Your task to perform on an android device: turn off smart reply in the gmail app Image 0: 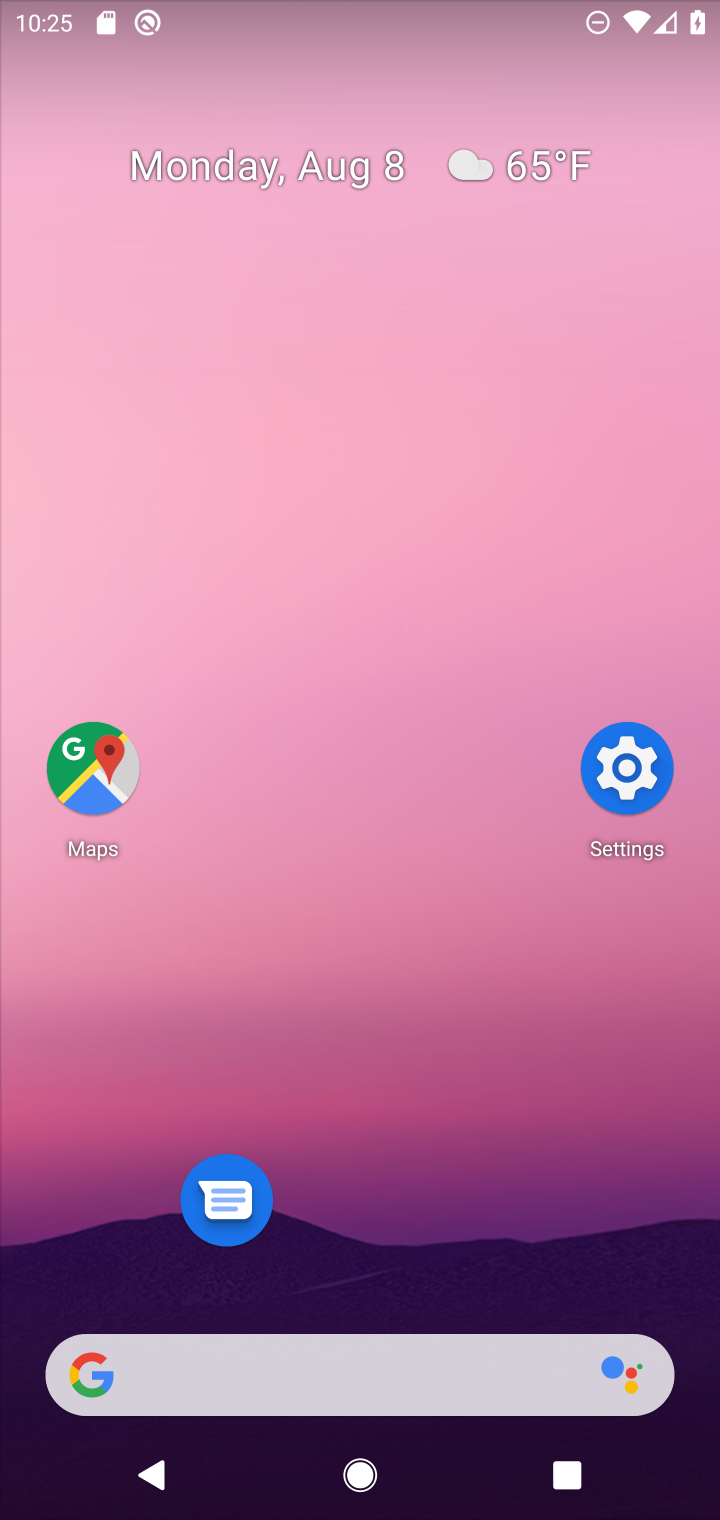
Step 0: drag from (318, 1378) to (538, 284)
Your task to perform on an android device: turn off smart reply in the gmail app Image 1: 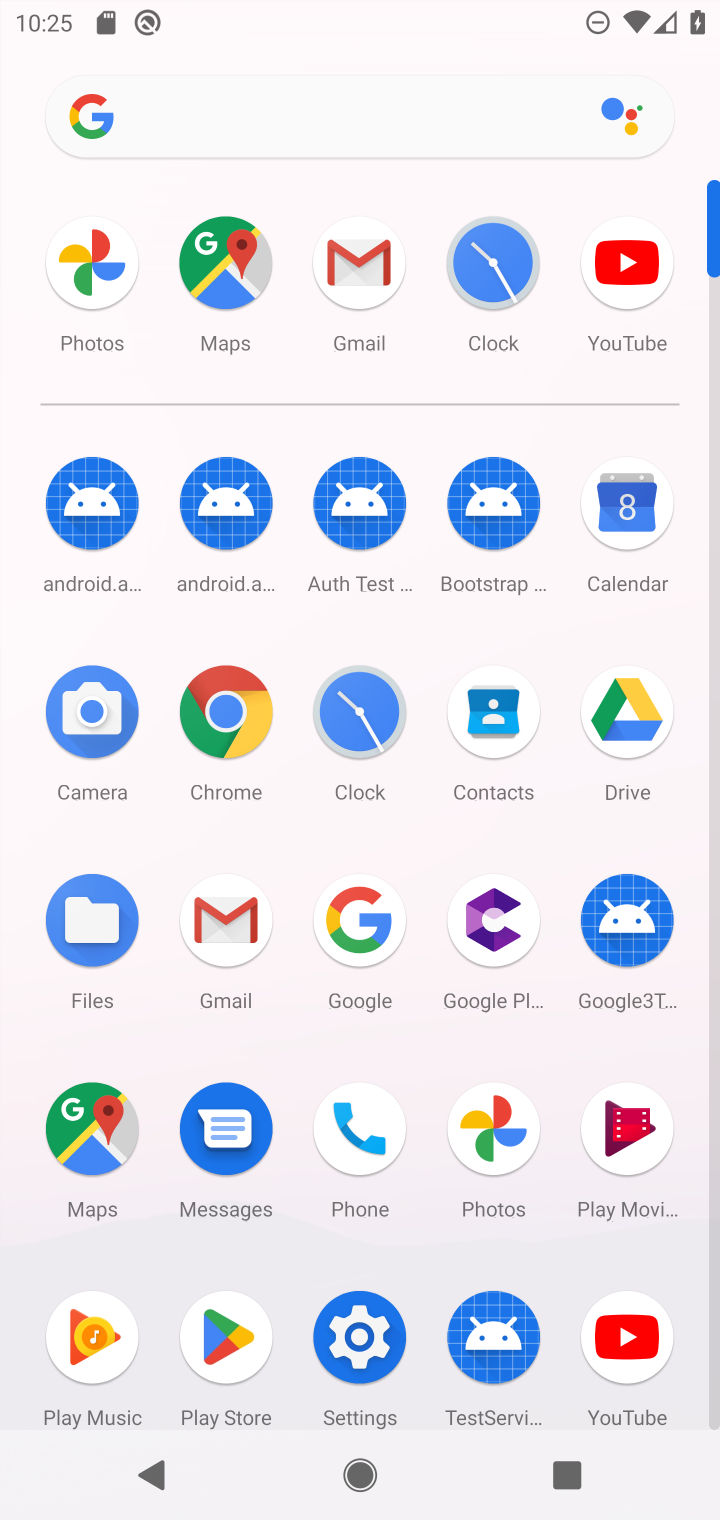
Step 1: click (353, 266)
Your task to perform on an android device: turn off smart reply in the gmail app Image 2: 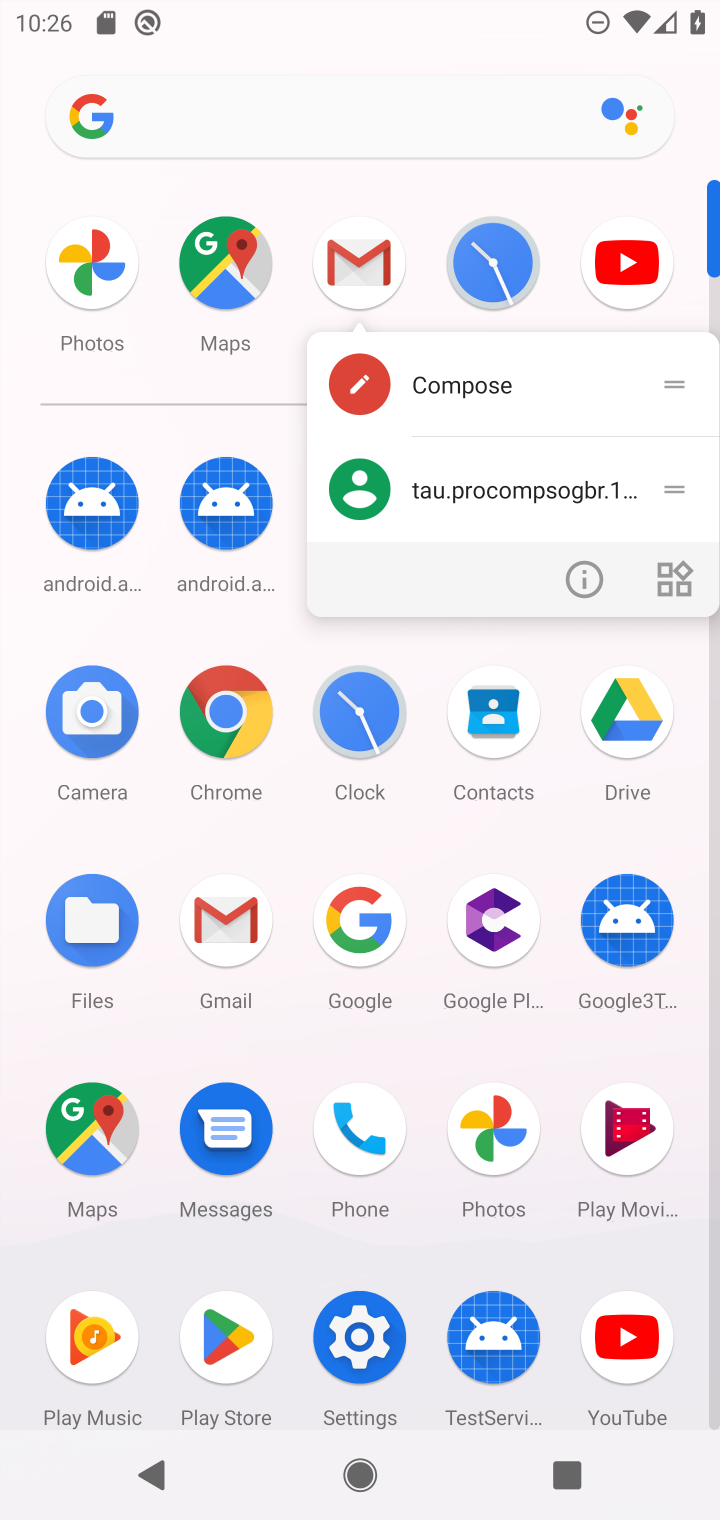
Step 2: click (353, 268)
Your task to perform on an android device: turn off smart reply in the gmail app Image 3: 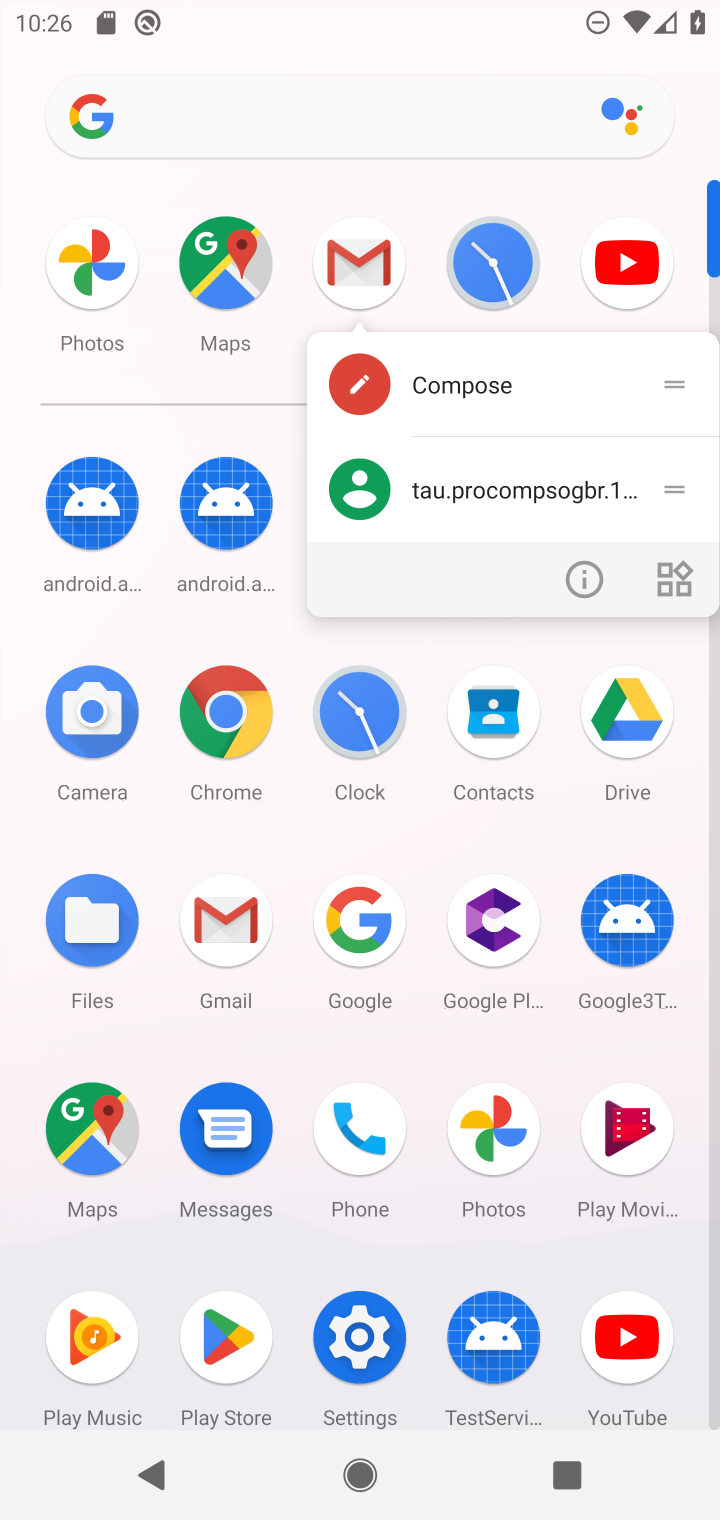
Step 3: click (353, 269)
Your task to perform on an android device: turn off smart reply in the gmail app Image 4: 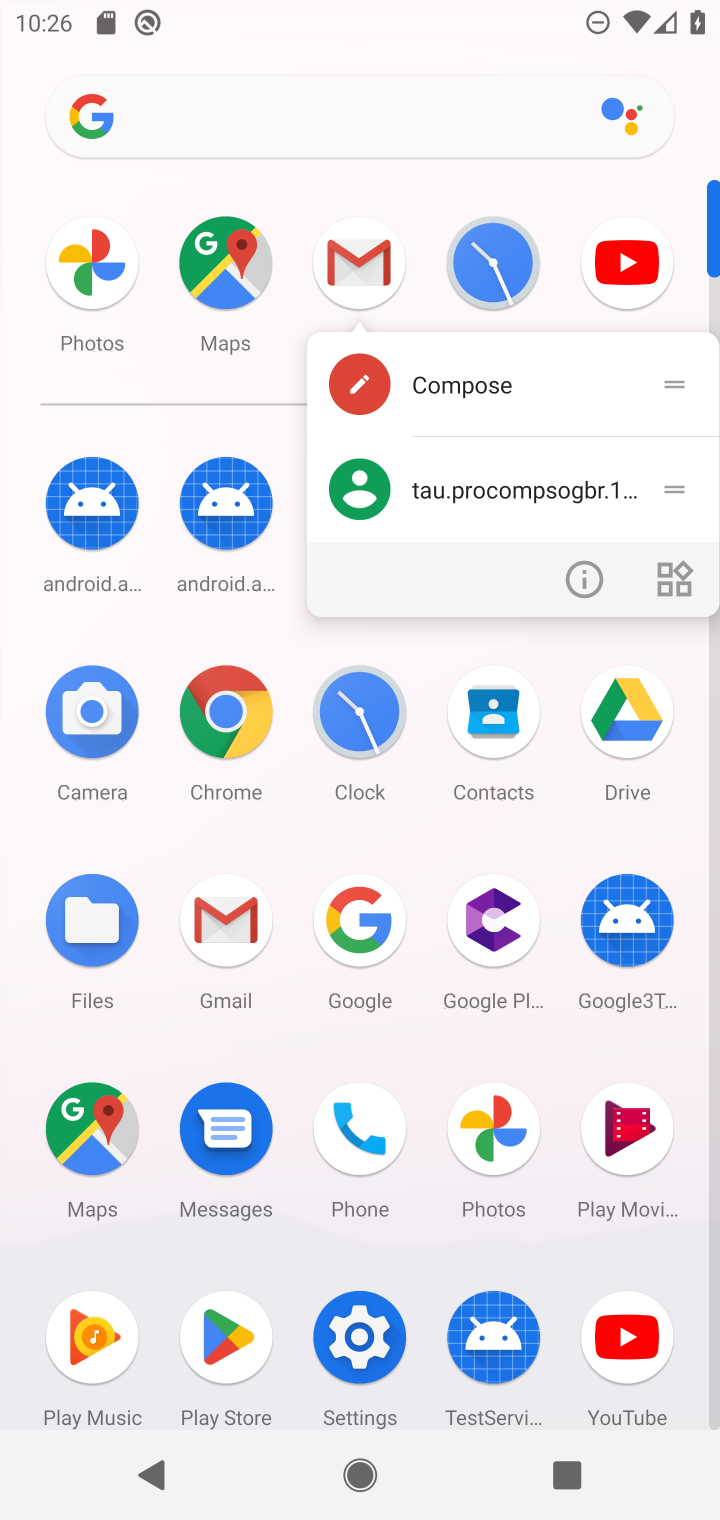
Step 4: click (353, 269)
Your task to perform on an android device: turn off smart reply in the gmail app Image 5: 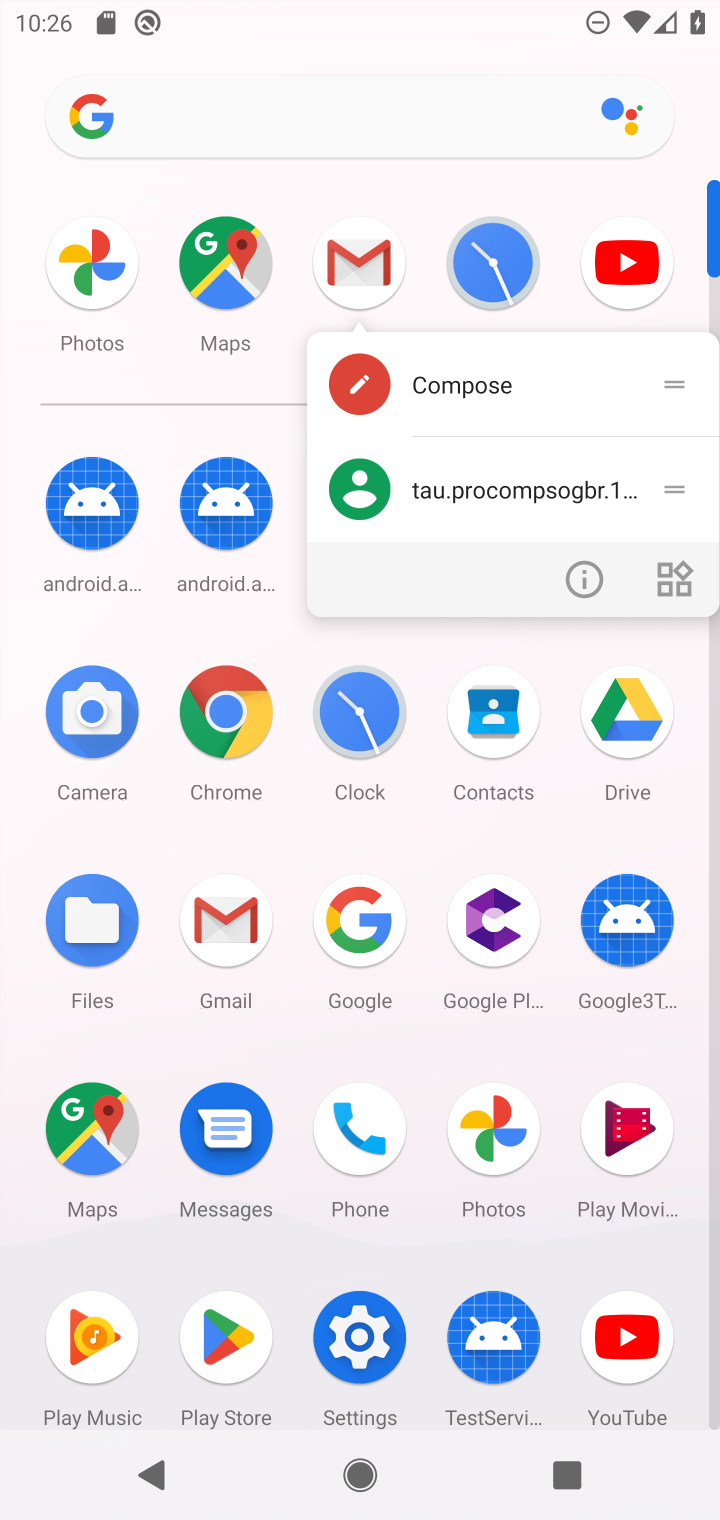
Step 5: click (353, 269)
Your task to perform on an android device: turn off smart reply in the gmail app Image 6: 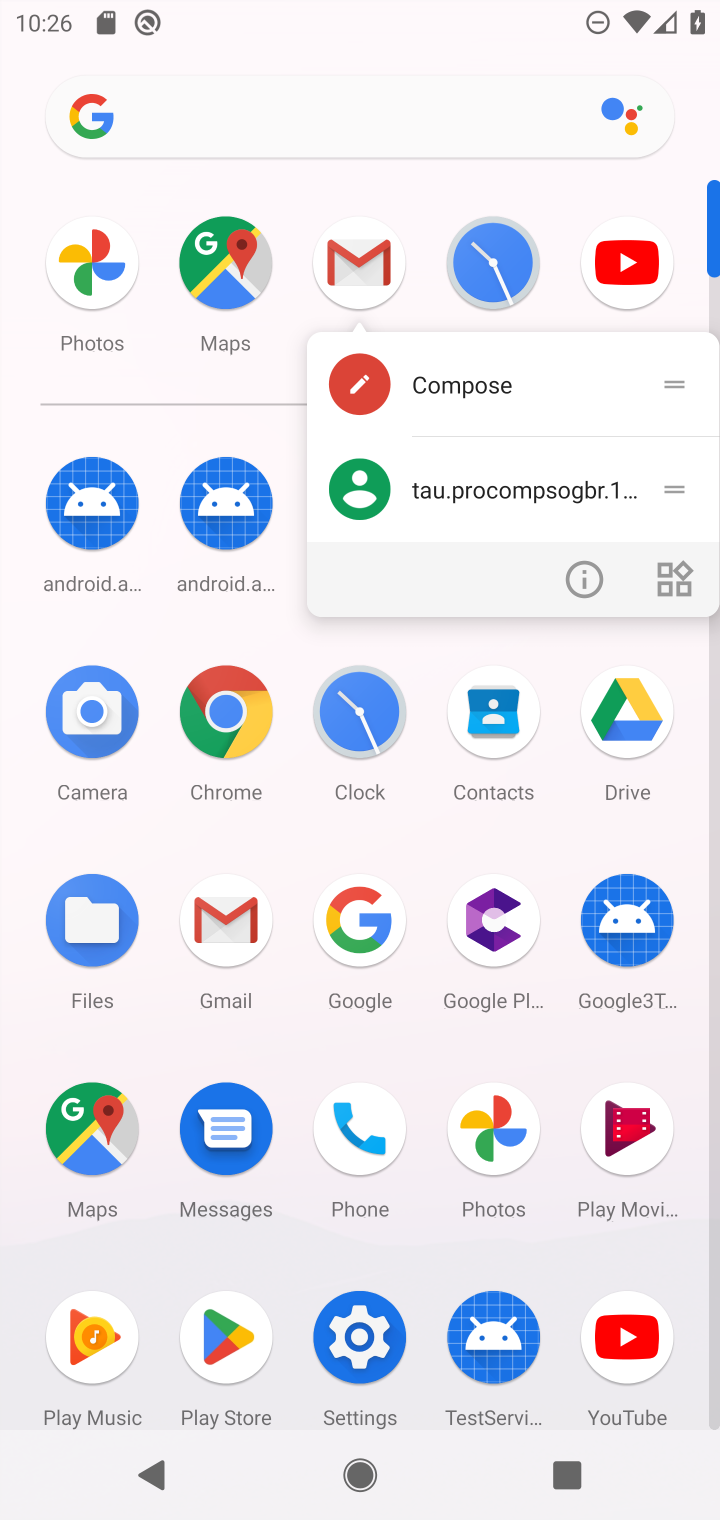
Step 6: click (354, 250)
Your task to perform on an android device: turn off smart reply in the gmail app Image 7: 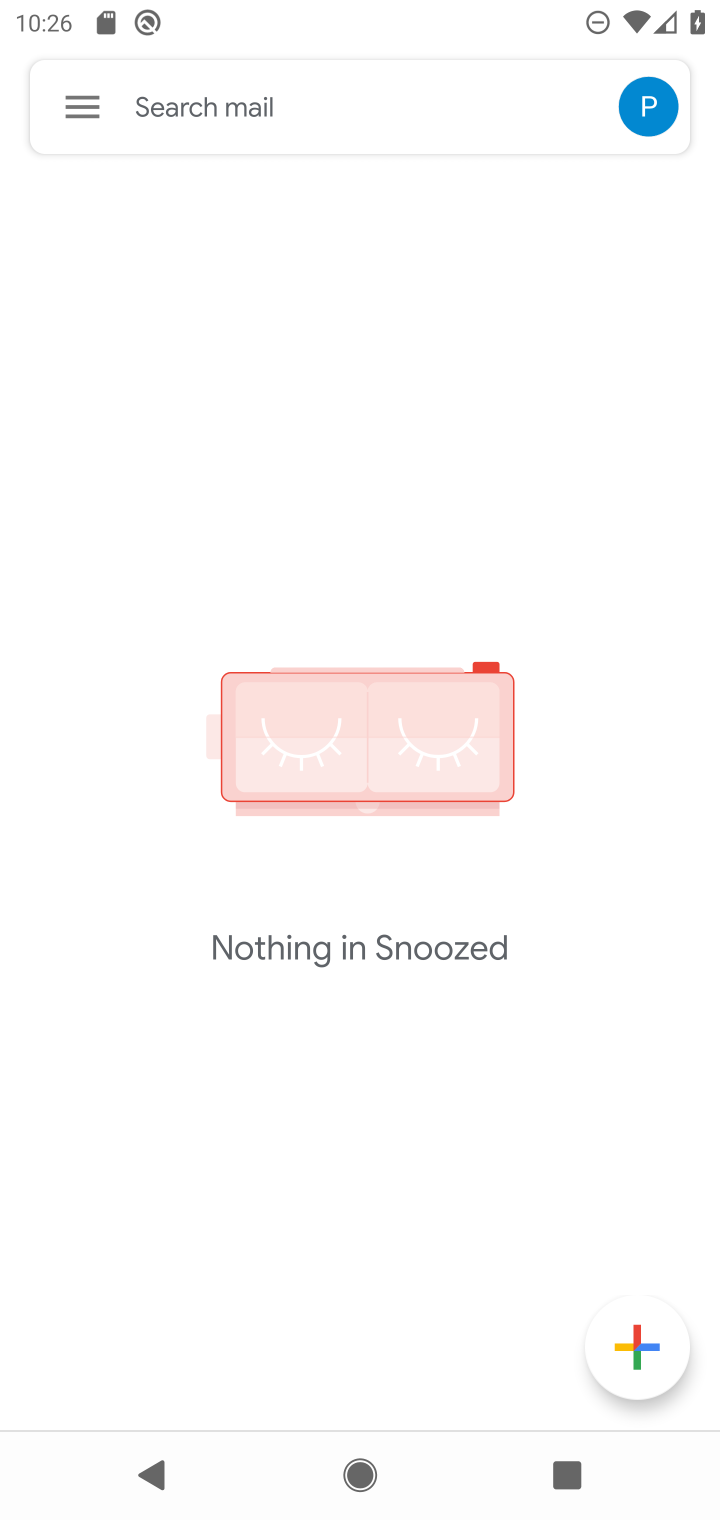
Step 7: click (83, 91)
Your task to perform on an android device: turn off smart reply in the gmail app Image 8: 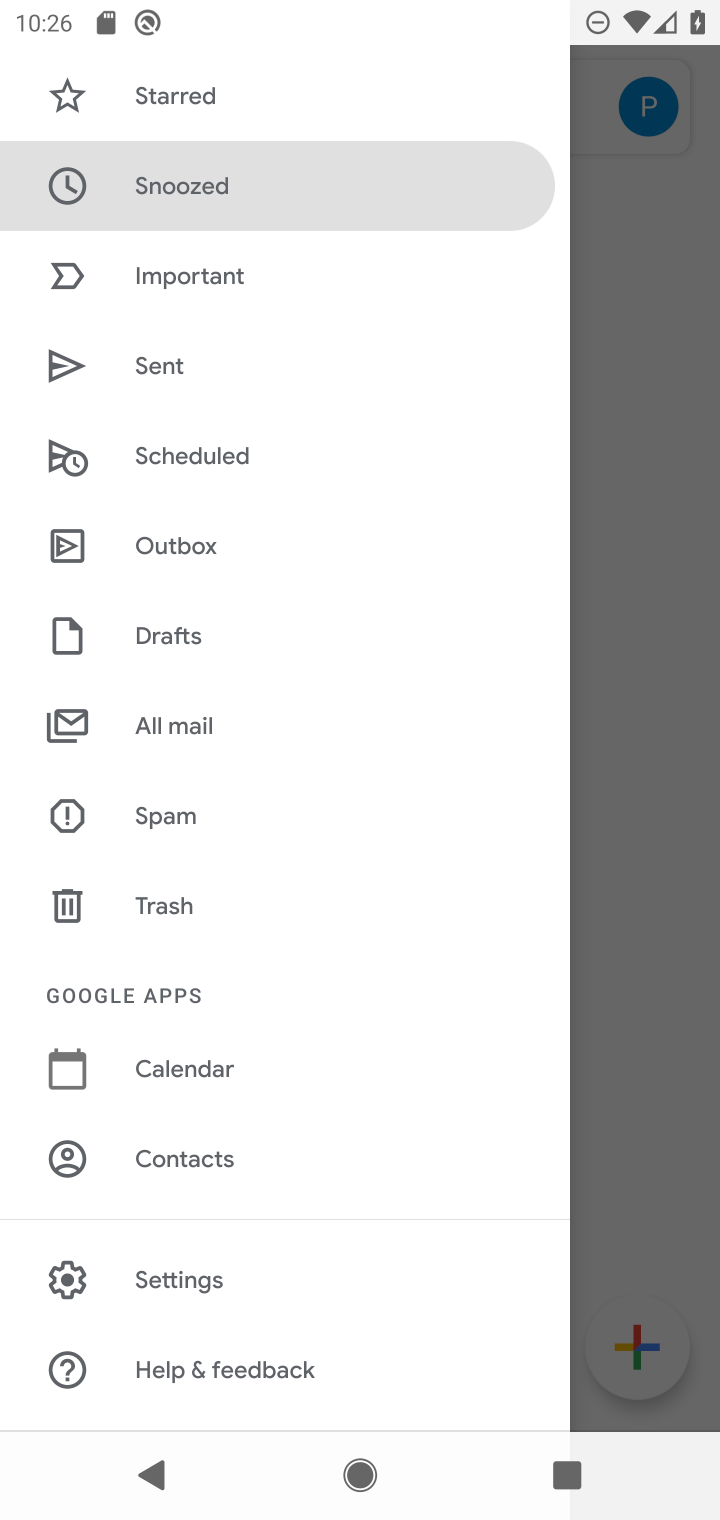
Step 8: click (204, 1283)
Your task to perform on an android device: turn off smart reply in the gmail app Image 9: 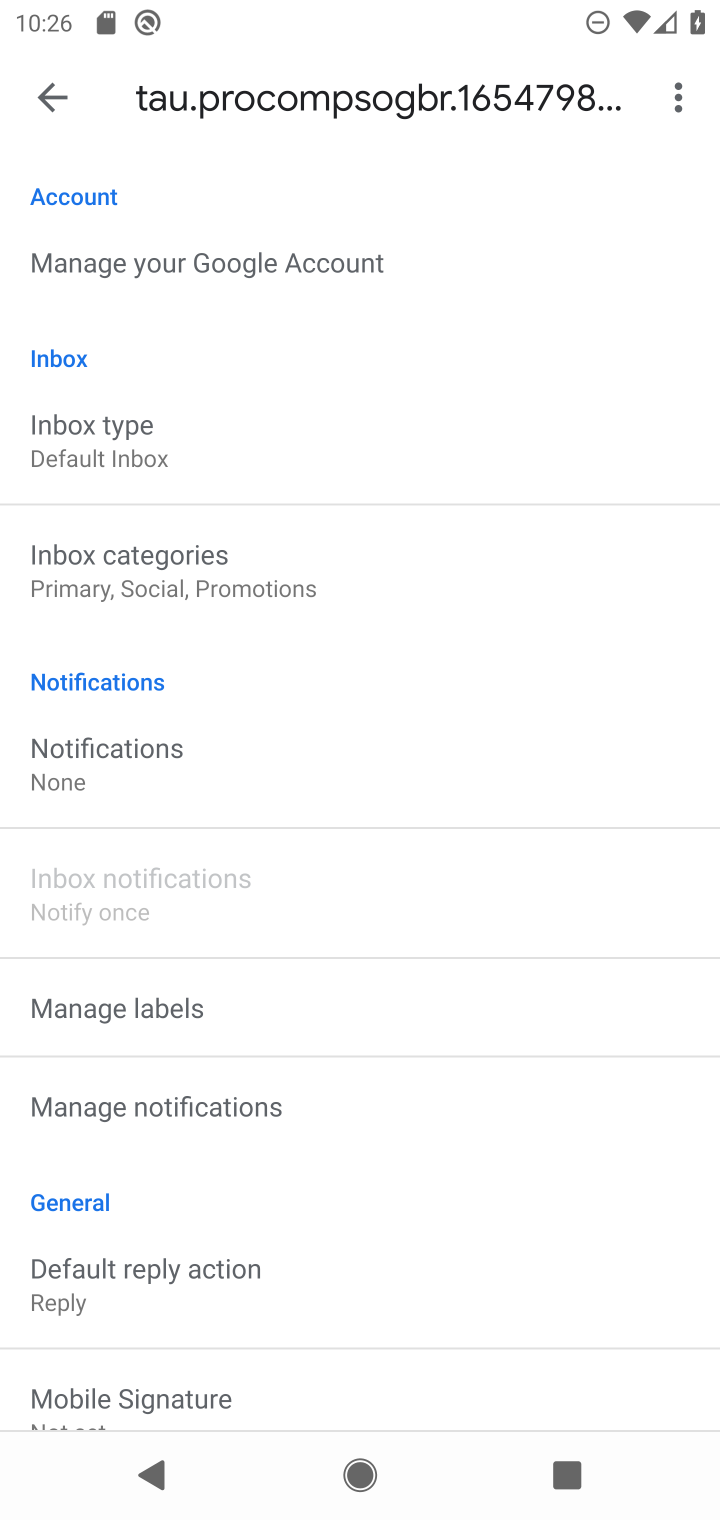
Step 9: drag from (310, 1312) to (617, 350)
Your task to perform on an android device: turn off smart reply in the gmail app Image 10: 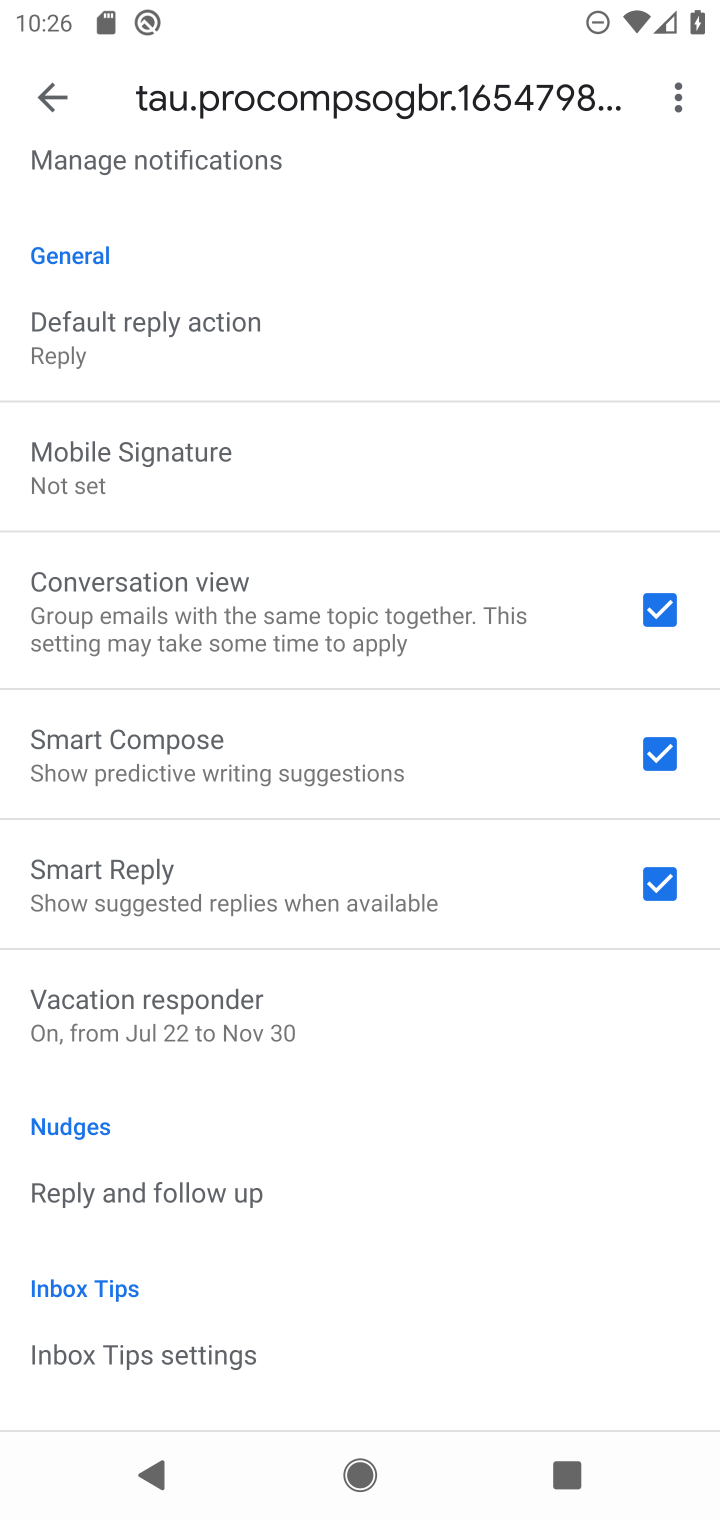
Step 10: click (648, 887)
Your task to perform on an android device: turn off smart reply in the gmail app Image 11: 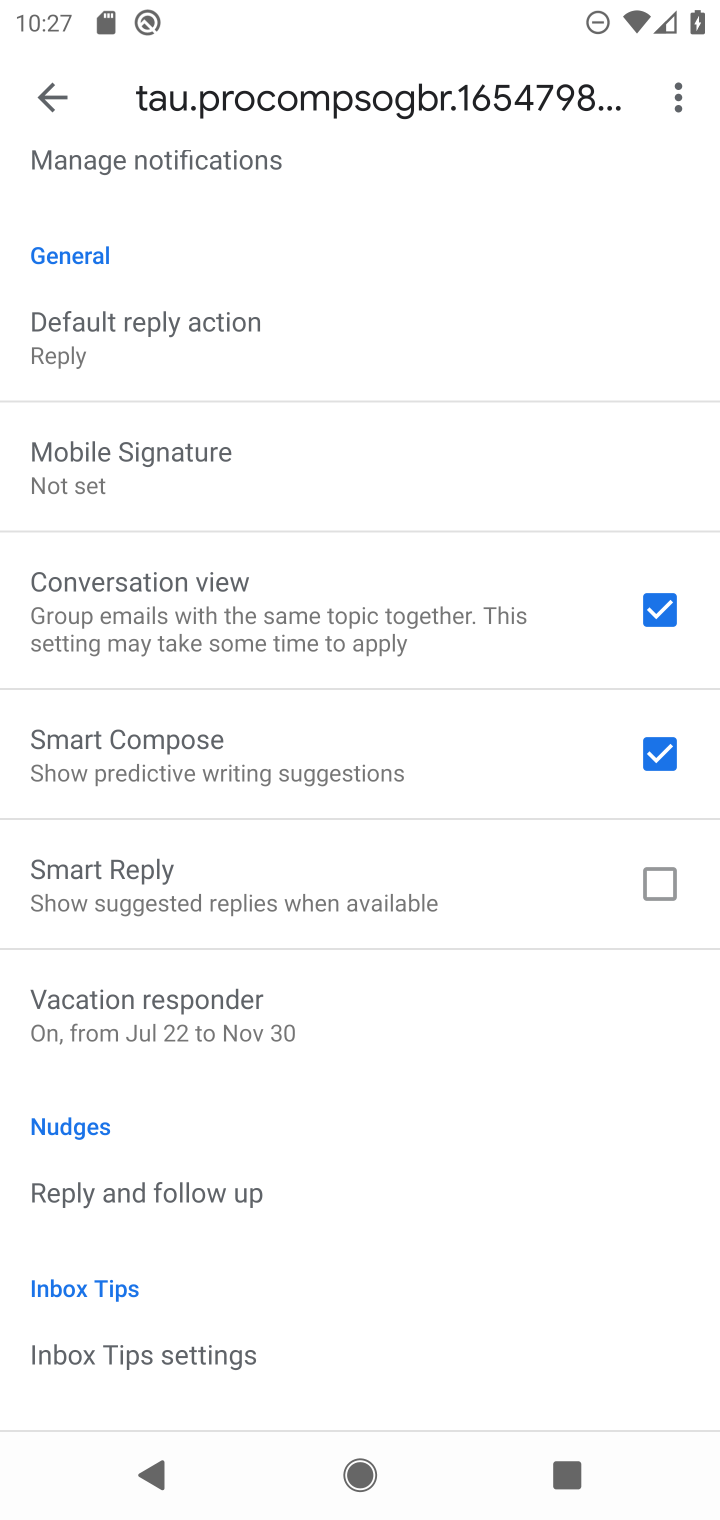
Step 11: task complete